Your task to perform on an android device: Open Android settings Image 0: 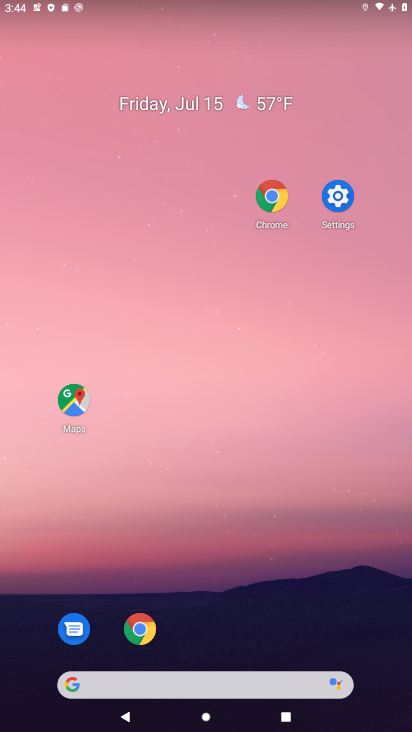
Step 0: drag from (275, 322) to (273, 222)
Your task to perform on an android device: Open Android settings Image 1: 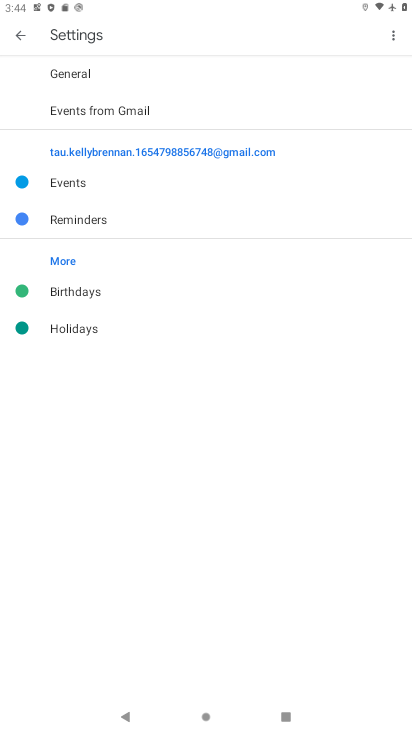
Step 1: click (15, 34)
Your task to perform on an android device: Open Android settings Image 2: 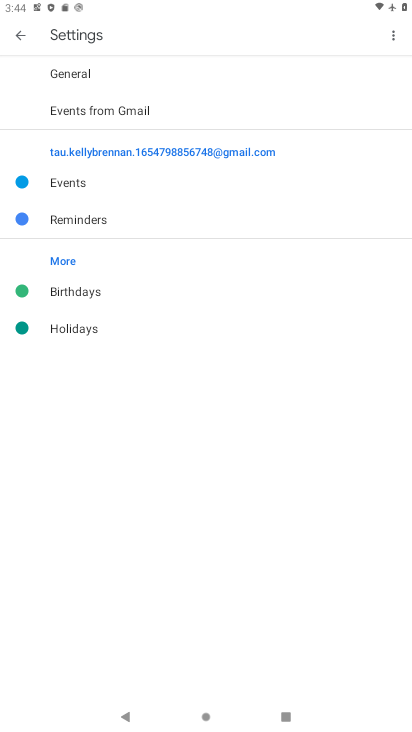
Step 2: click (15, 35)
Your task to perform on an android device: Open Android settings Image 3: 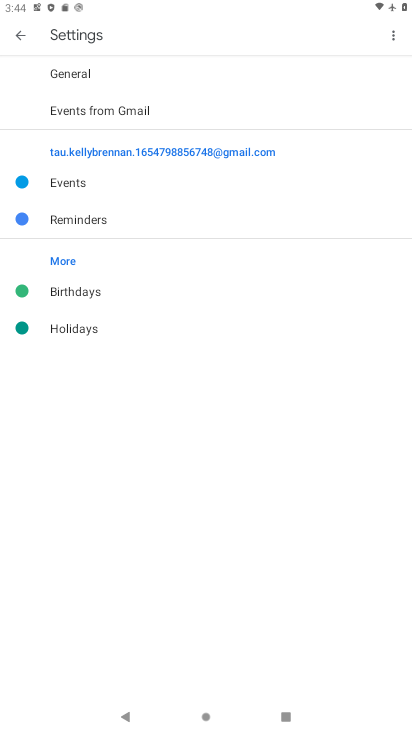
Step 3: click (15, 35)
Your task to perform on an android device: Open Android settings Image 4: 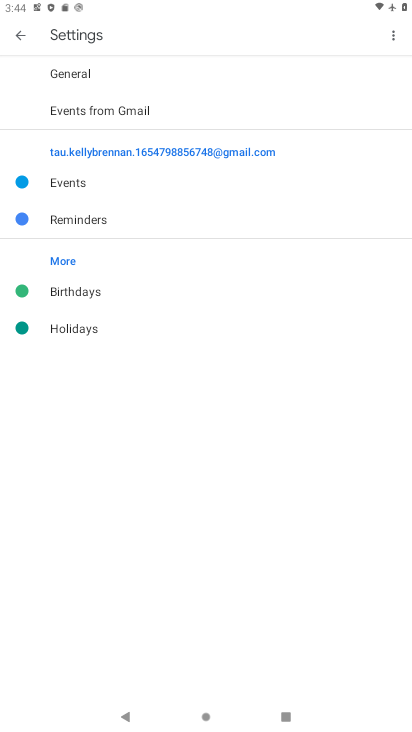
Step 4: click (15, 35)
Your task to perform on an android device: Open Android settings Image 5: 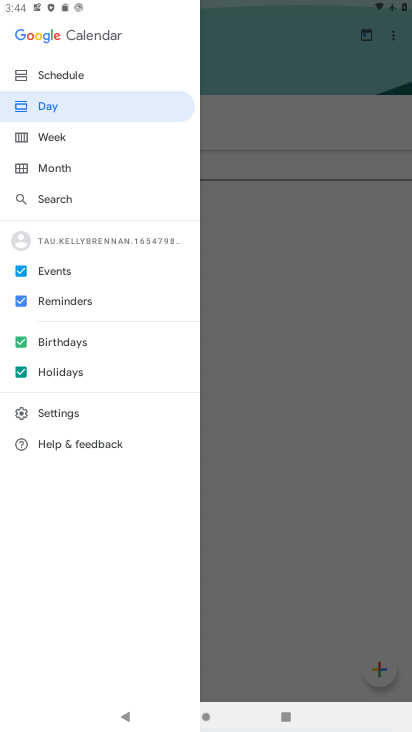
Step 5: click (284, 544)
Your task to perform on an android device: Open Android settings Image 6: 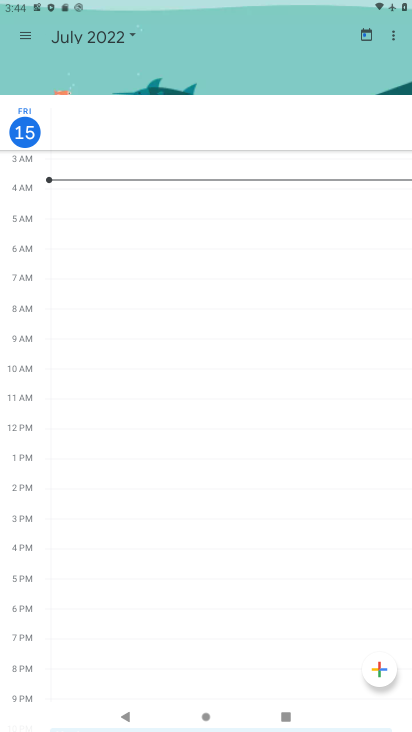
Step 6: press back button
Your task to perform on an android device: Open Android settings Image 7: 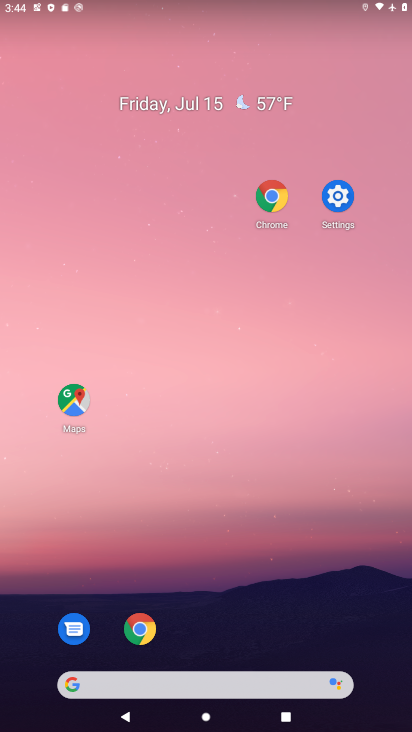
Step 7: drag from (361, 693) to (181, 122)
Your task to perform on an android device: Open Android settings Image 8: 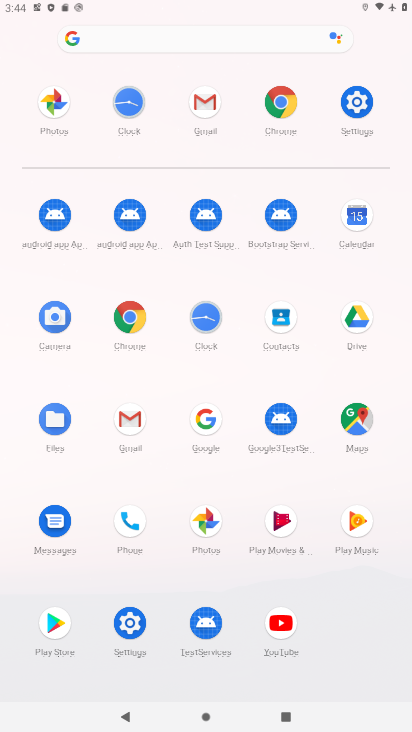
Step 8: click (349, 112)
Your task to perform on an android device: Open Android settings Image 9: 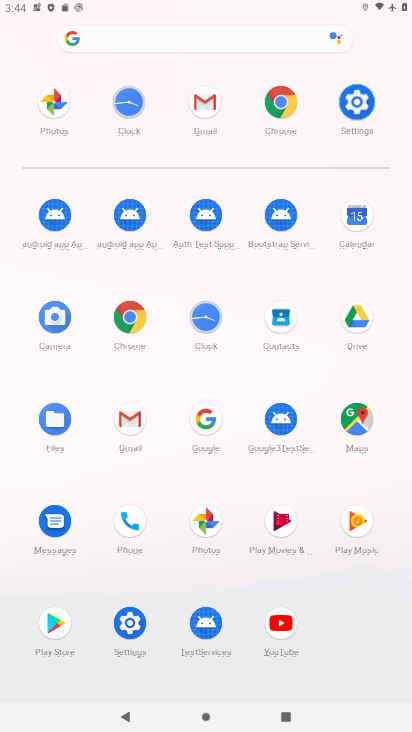
Step 9: click (350, 111)
Your task to perform on an android device: Open Android settings Image 10: 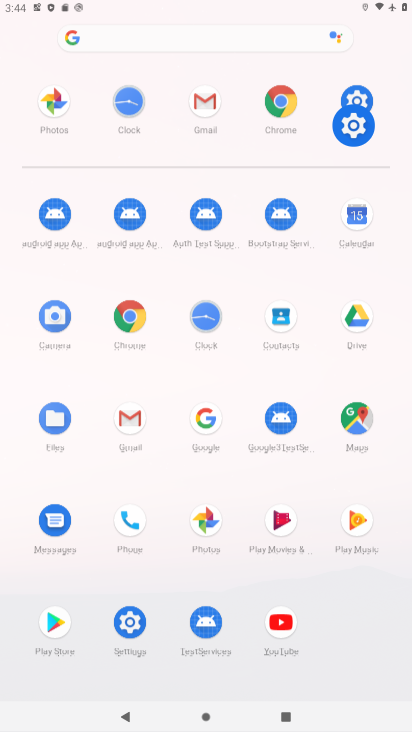
Step 10: click (351, 110)
Your task to perform on an android device: Open Android settings Image 11: 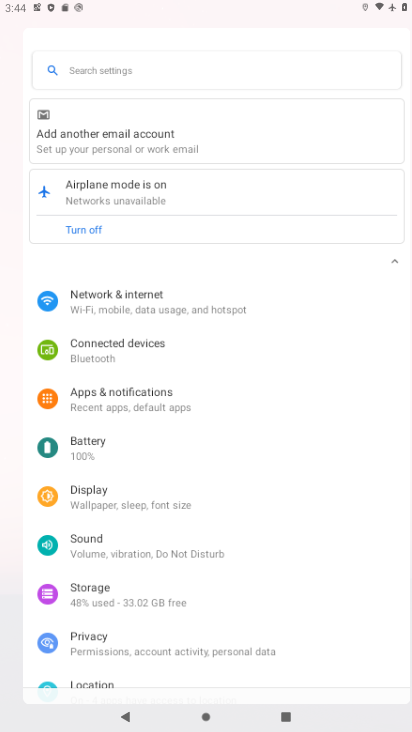
Step 11: click (351, 110)
Your task to perform on an android device: Open Android settings Image 12: 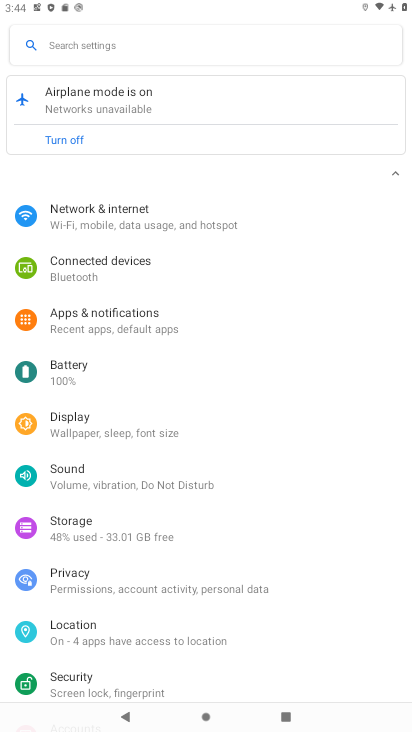
Step 12: drag from (179, 553) to (178, 212)
Your task to perform on an android device: Open Android settings Image 13: 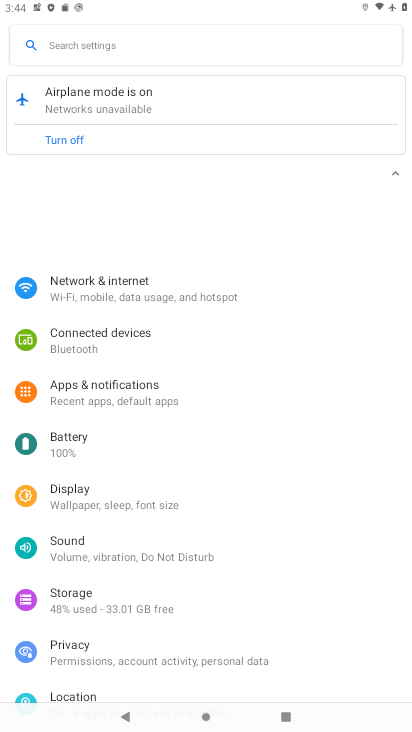
Step 13: drag from (138, 541) to (126, 288)
Your task to perform on an android device: Open Android settings Image 14: 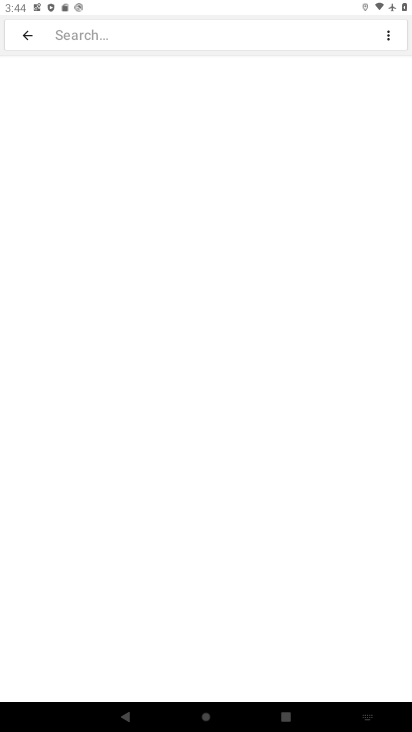
Step 14: drag from (153, 489) to (173, 202)
Your task to perform on an android device: Open Android settings Image 15: 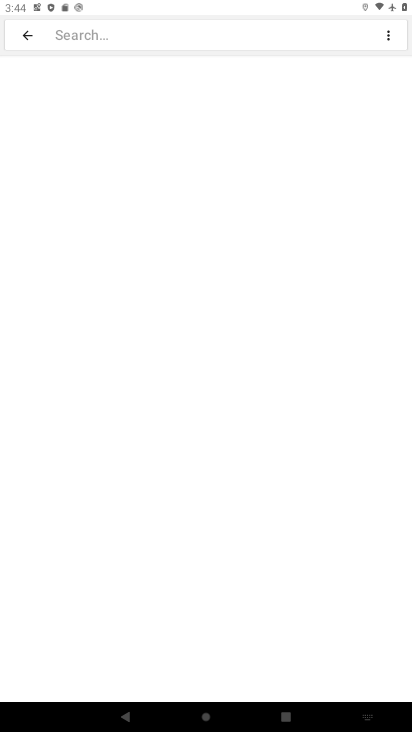
Step 15: click (26, 32)
Your task to perform on an android device: Open Android settings Image 16: 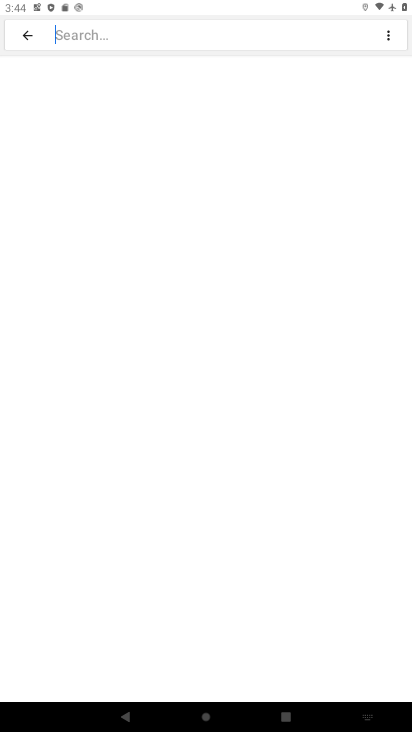
Step 16: click (26, 32)
Your task to perform on an android device: Open Android settings Image 17: 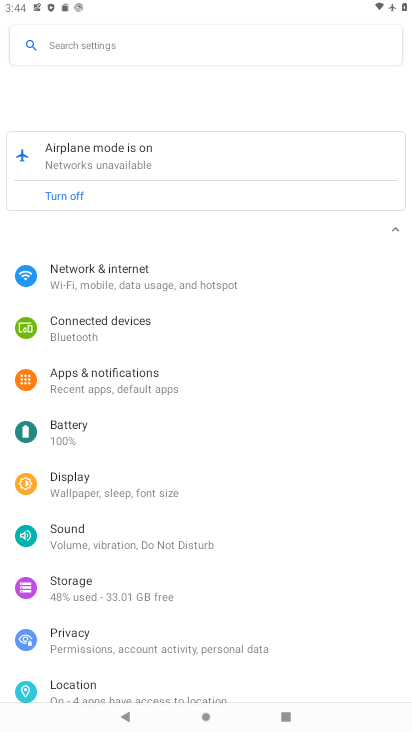
Step 17: drag from (113, 574) to (113, 219)
Your task to perform on an android device: Open Android settings Image 18: 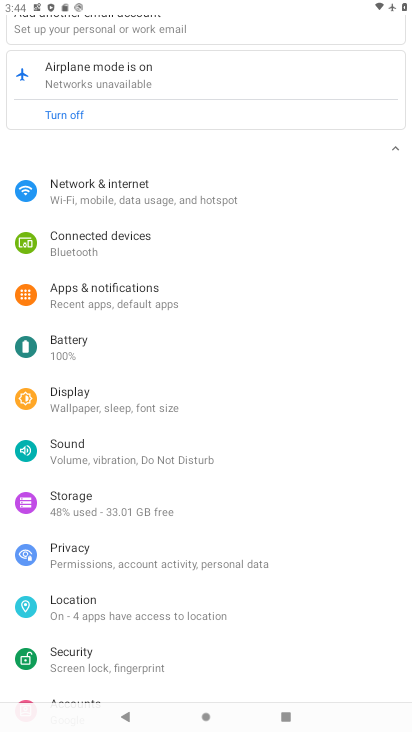
Step 18: drag from (97, 657) to (97, 412)
Your task to perform on an android device: Open Android settings Image 19: 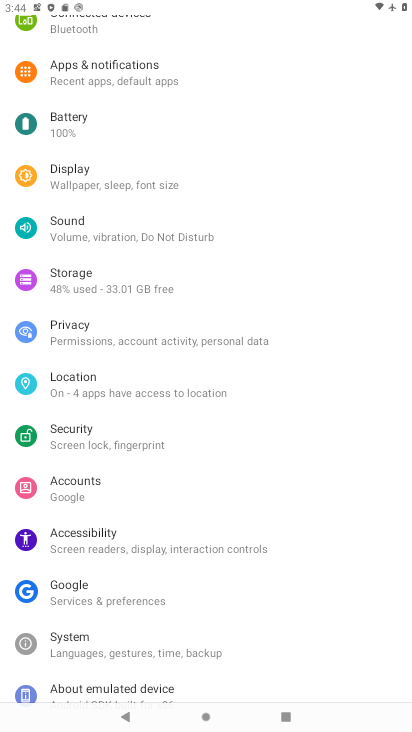
Step 19: drag from (132, 651) to (129, 439)
Your task to perform on an android device: Open Android settings Image 20: 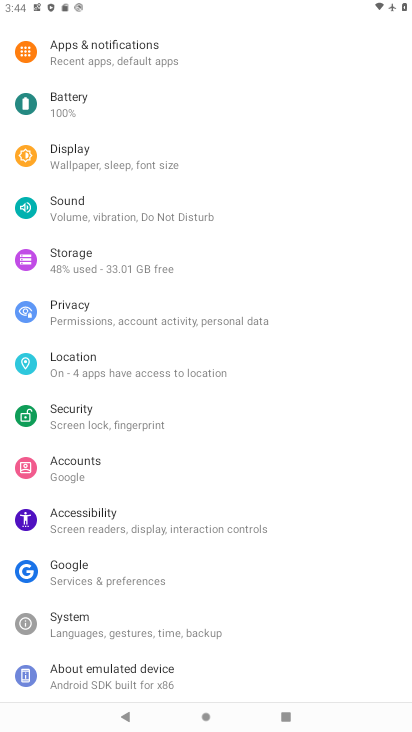
Step 20: drag from (118, 689) to (115, 483)
Your task to perform on an android device: Open Android settings Image 21: 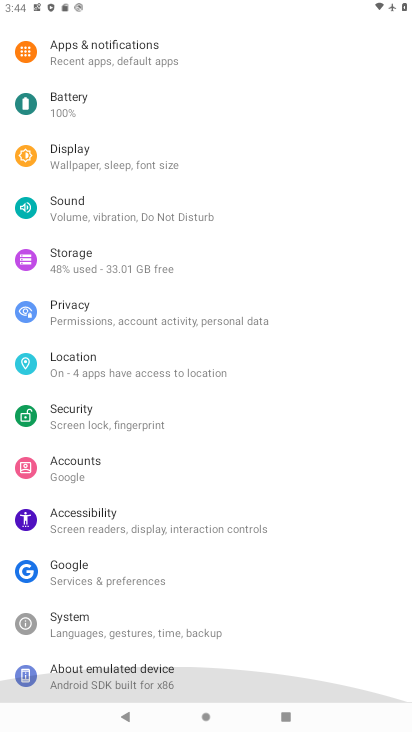
Step 21: drag from (127, 621) to (126, 351)
Your task to perform on an android device: Open Android settings Image 22: 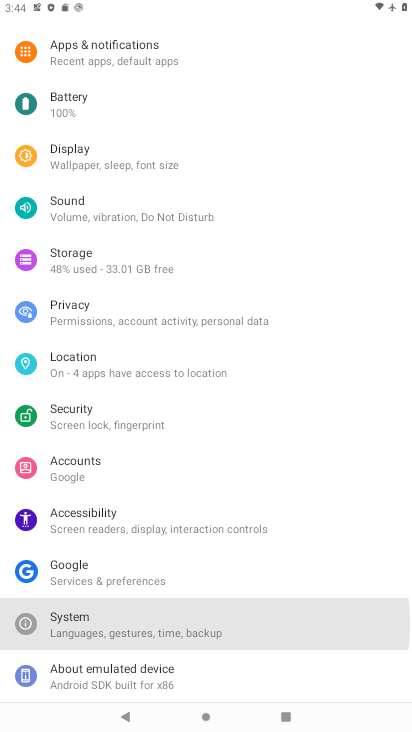
Step 22: drag from (131, 556) to (141, 386)
Your task to perform on an android device: Open Android settings Image 23: 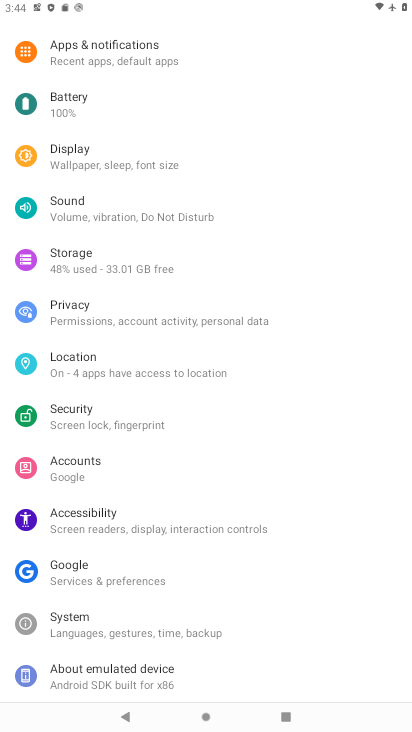
Step 23: click (126, 676)
Your task to perform on an android device: Open Android settings Image 24: 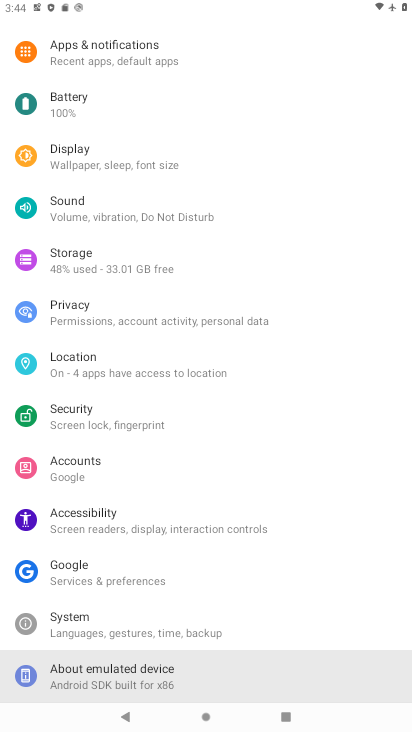
Step 24: click (135, 674)
Your task to perform on an android device: Open Android settings Image 25: 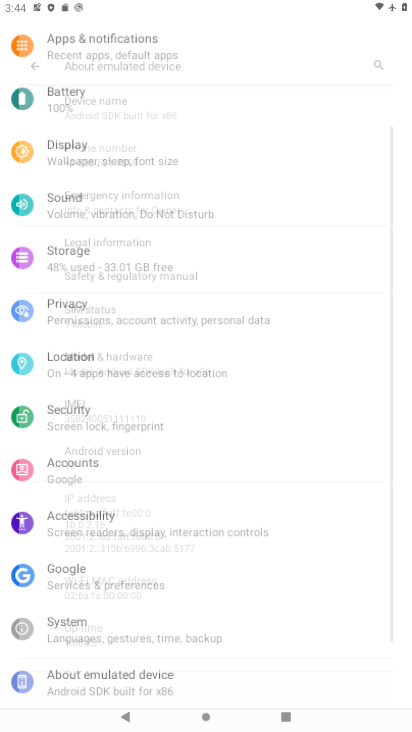
Step 25: click (135, 674)
Your task to perform on an android device: Open Android settings Image 26: 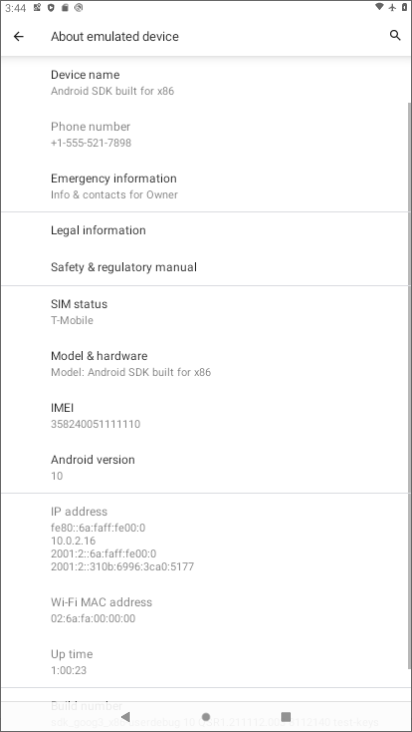
Step 26: click (136, 673)
Your task to perform on an android device: Open Android settings Image 27: 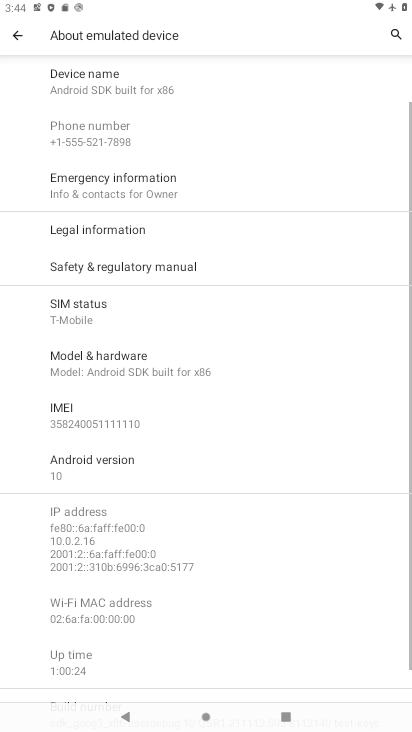
Step 27: task complete